Your task to perform on an android device: open a bookmark in the chrome app Image 0: 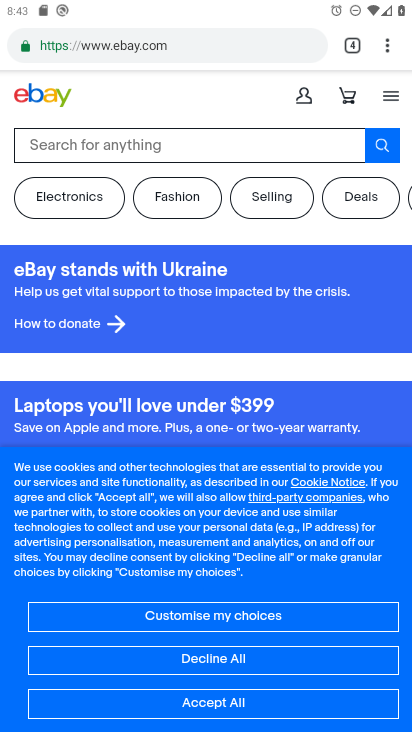
Step 0: press home button
Your task to perform on an android device: open a bookmark in the chrome app Image 1: 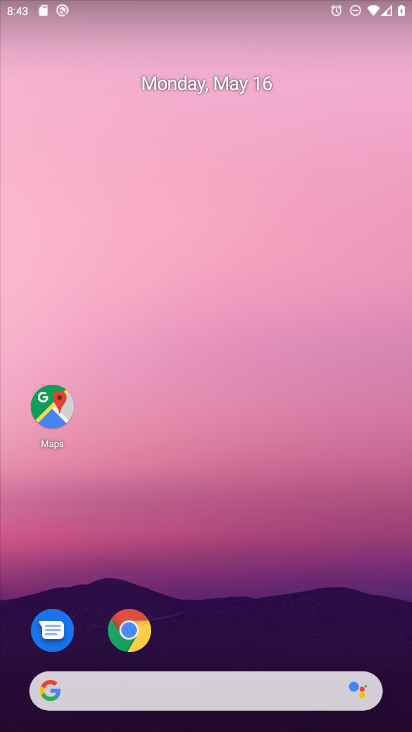
Step 1: click (134, 633)
Your task to perform on an android device: open a bookmark in the chrome app Image 2: 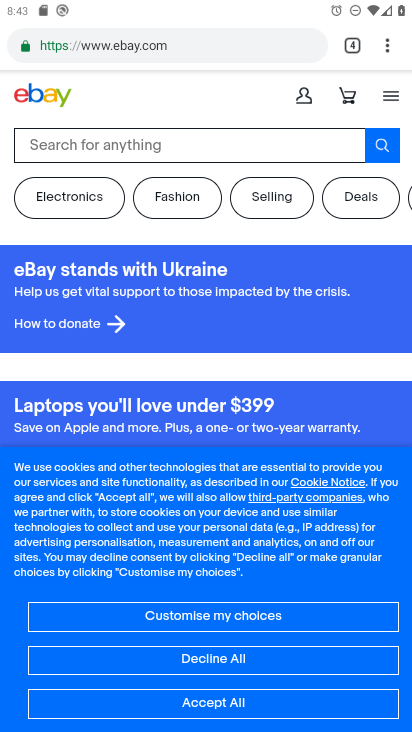
Step 2: click (386, 25)
Your task to perform on an android device: open a bookmark in the chrome app Image 3: 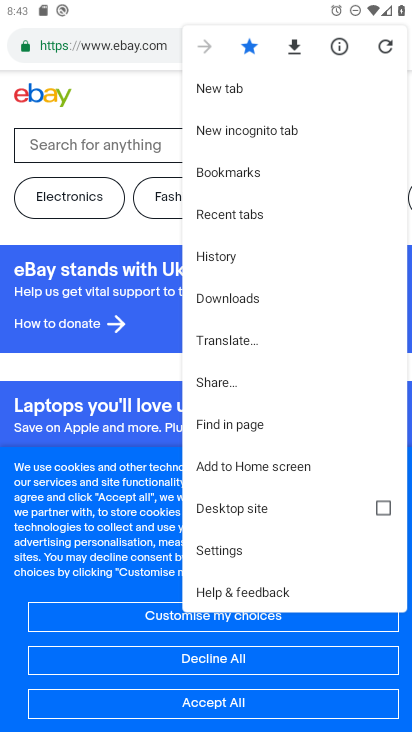
Step 3: click (268, 165)
Your task to perform on an android device: open a bookmark in the chrome app Image 4: 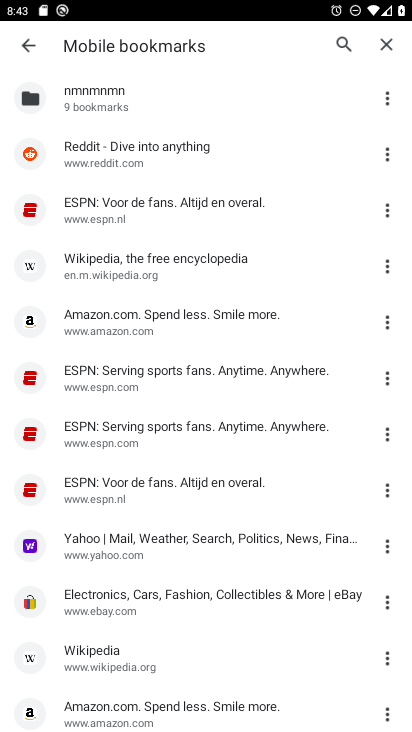
Step 4: task complete